Your task to perform on an android device: turn on improve location accuracy Image 0: 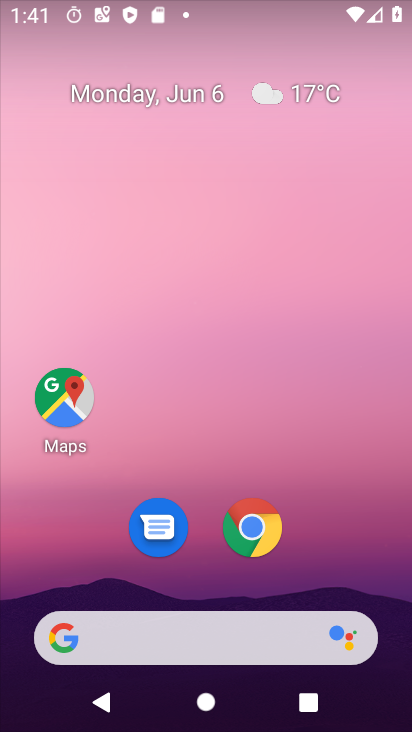
Step 0: drag from (240, 726) to (241, 72)
Your task to perform on an android device: turn on improve location accuracy Image 1: 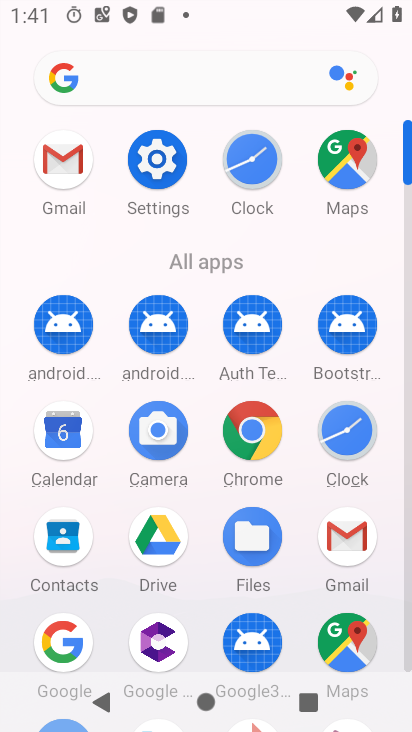
Step 1: click (158, 166)
Your task to perform on an android device: turn on improve location accuracy Image 2: 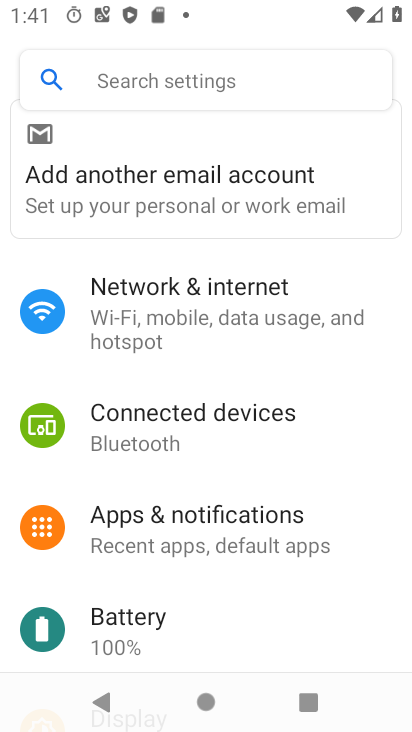
Step 2: drag from (166, 652) to (160, 218)
Your task to perform on an android device: turn on improve location accuracy Image 3: 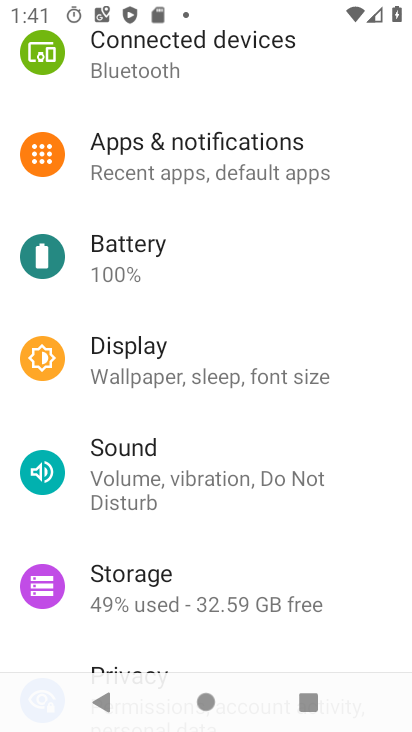
Step 3: drag from (154, 631) to (158, 202)
Your task to perform on an android device: turn on improve location accuracy Image 4: 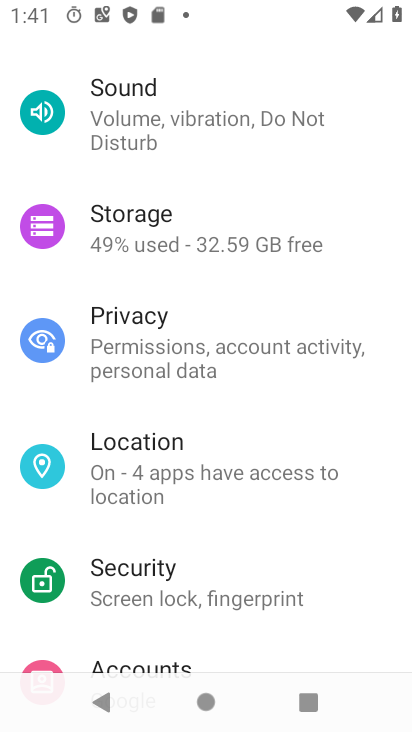
Step 4: click (138, 468)
Your task to perform on an android device: turn on improve location accuracy Image 5: 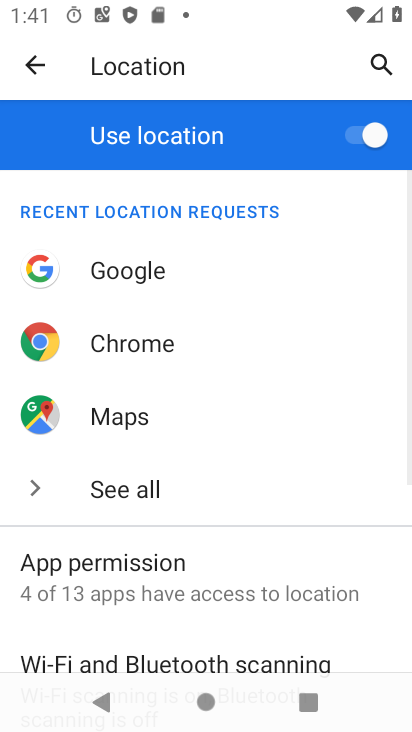
Step 5: drag from (151, 644) to (152, 225)
Your task to perform on an android device: turn on improve location accuracy Image 6: 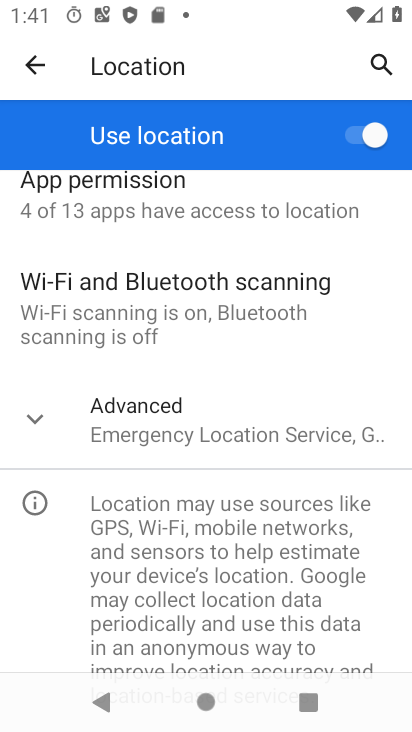
Step 6: click (153, 431)
Your task to perform on an android device: turn on improve location accuracy Image 7: 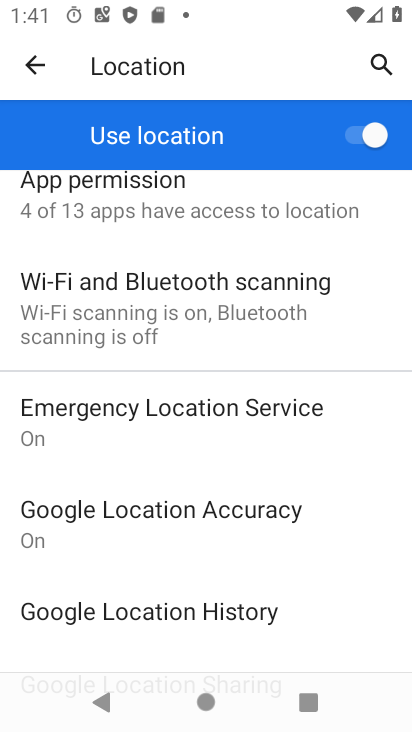
Step 7: click (126, 510)
Your task to perform on an android device: turn on improve location accuracy Image 8: 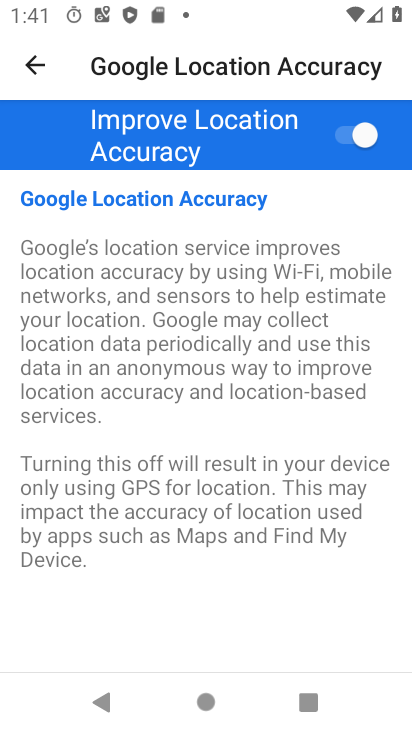
Step 8: task complete